Your task to perform on an android device: turn on the 12-hour format for clock Image 0: 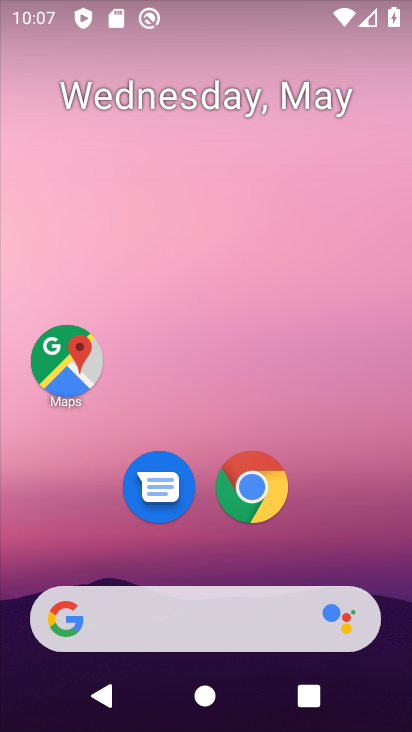
Step 0: drag from (344, 524) to (273, 24)
Your task to perform on an android device: turn on the 12-hour format for clock Image 1: 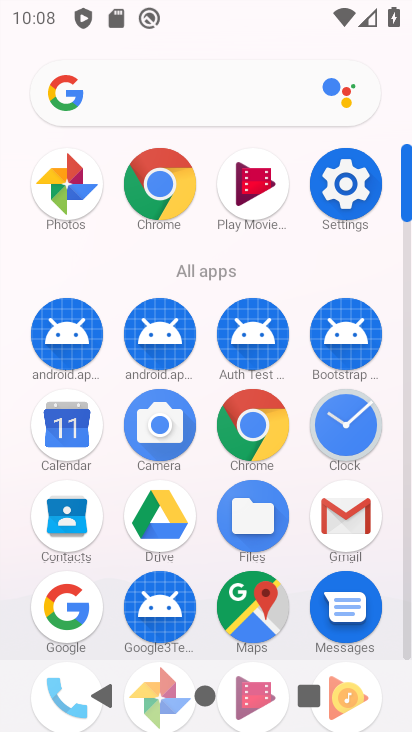
Step 1: drag from (1, 523) to (25, 270)
Your task to perform on an android device: turn on the 12-hour format for clock Image 2: 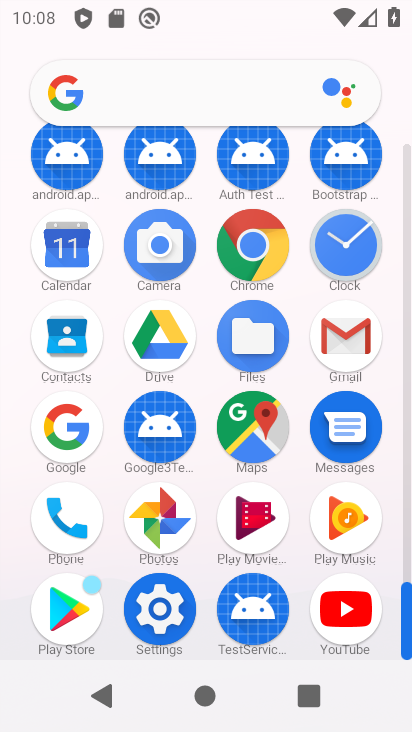
Step 2: click (340, 251)
Your task to perform on an android device: turn on the 12-hour format for clock Image 3: 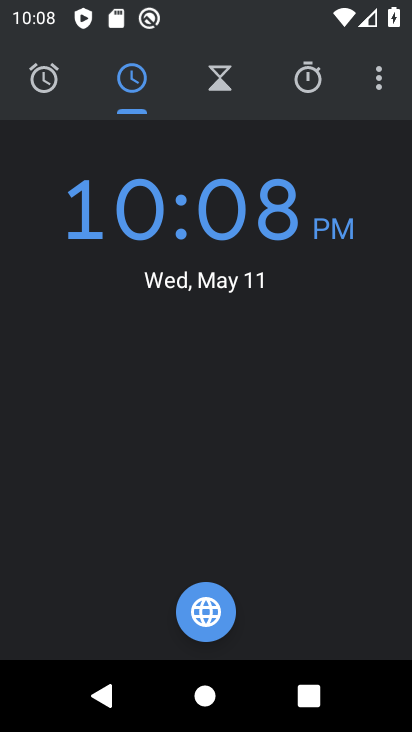
Step 3: drag from (383, 77) to (227, 165)
Your task to perform on an android device: turn on the 12-hour format for clock Image 4: 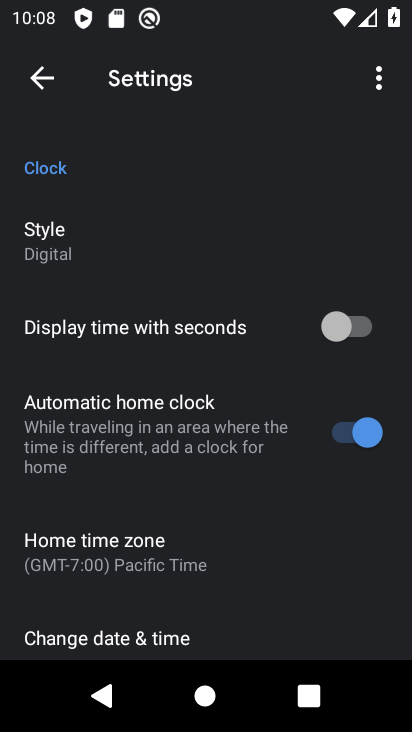
Step 4: drag from (172, 649) to (167, 273)
Your task to perform on an android device: turn on the 12-hour format for clock Image 5: 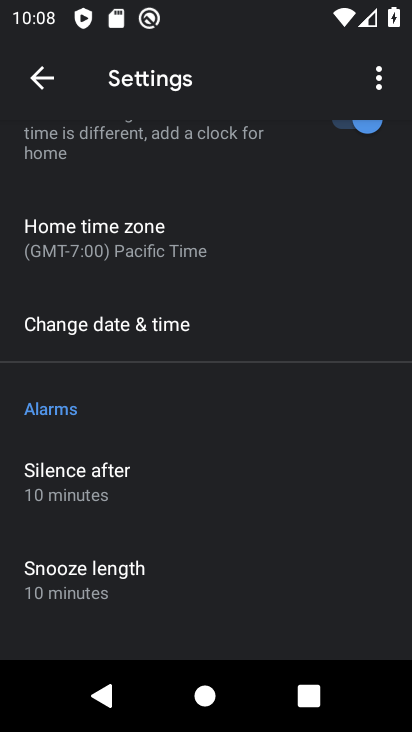
Step 5: click (186, 532)
Your task to perform on an android device: turn on the 12-hour format for clock Image 6: 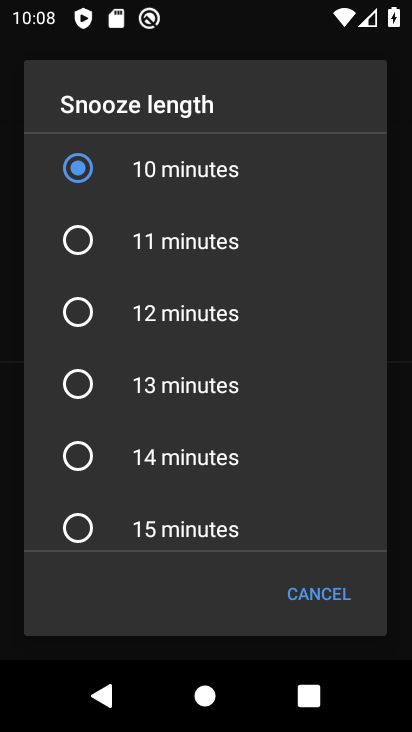
Step 6: press back button
Your task to perform on an android device: turn on the 12-hour format for clock Image 7: 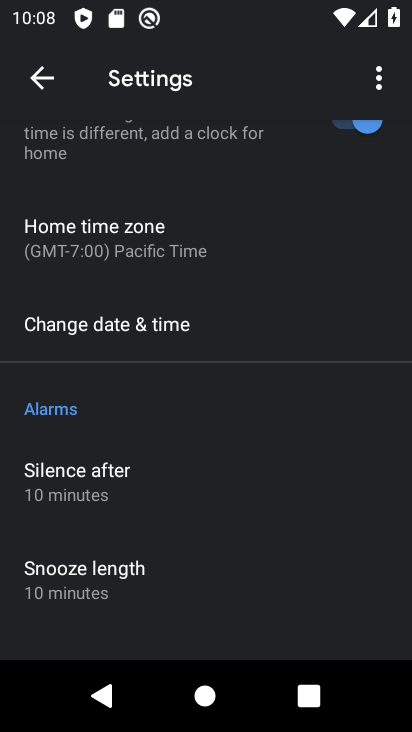
Step 7: click (135, 320)
Your task to perform on an android device: turn on the 12-hour format for clock Image 8: 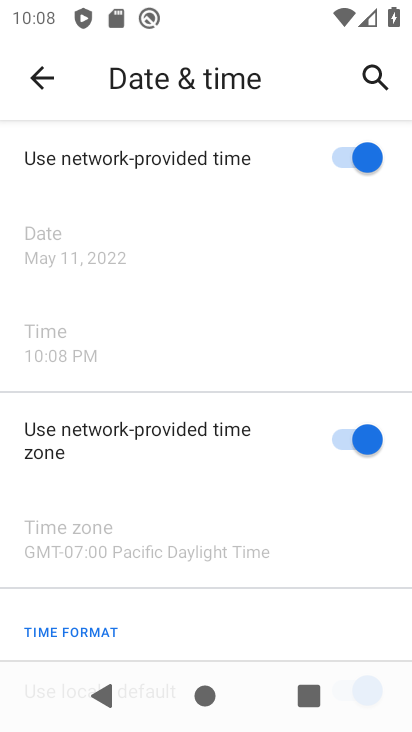
Step 8: task complete